Your task to perform on an android device: Open network settings Image 0: 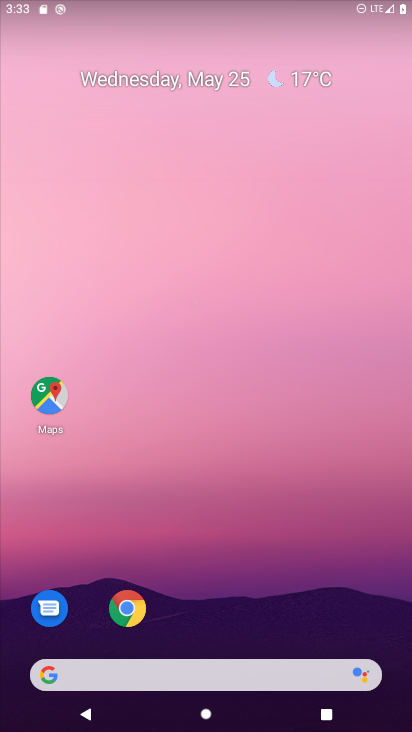
Step 0: drag from (371, 622) to (310, 6)
Your task to perform on an android device: Open network settings Image 1: 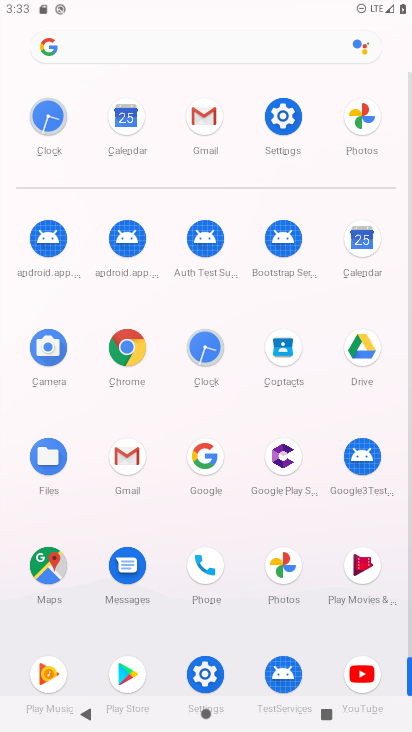
Step 1: click (207, 675)
Your task to perform on an android device: Open network settings Image 2: 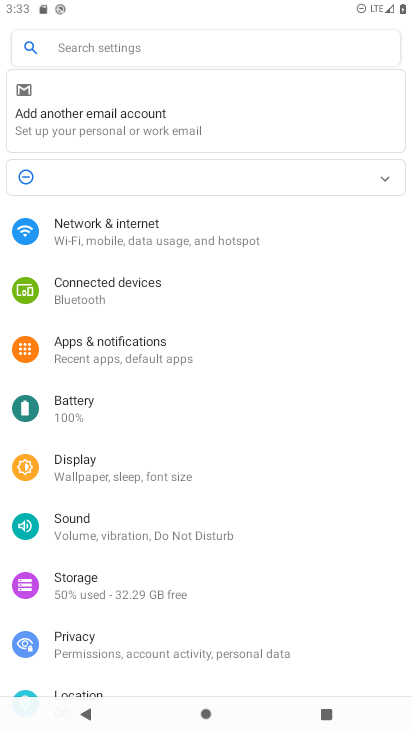
Step 2: click (119, 231)
Your task to perform on an android device: Open network settings Image 3: 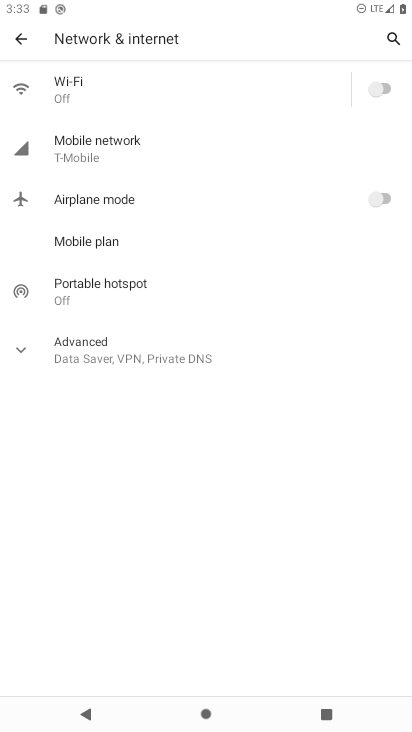
Step 3: click (23, 347)
Your task to perform on an android device: Open network settings Image 4: 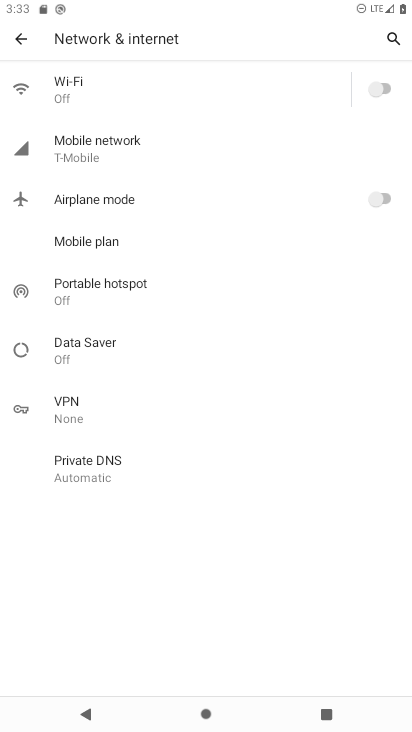
Step 4: click (96, 140)
Your task to perform on an android device: Open network settings Image 5: 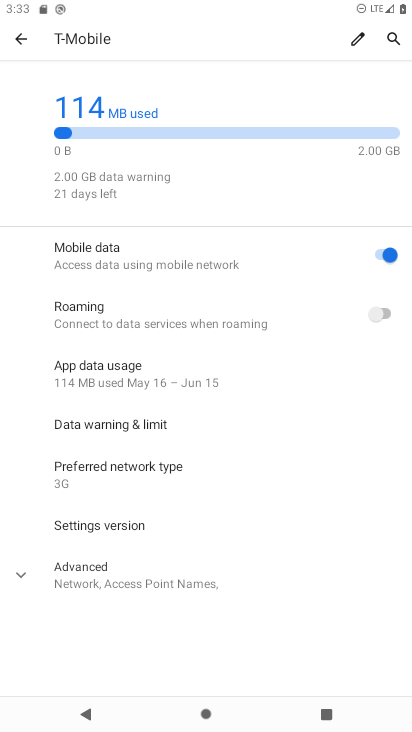
Step 5: click (11, 586)
Your task to perform on an android device: Open network settings Image 6: 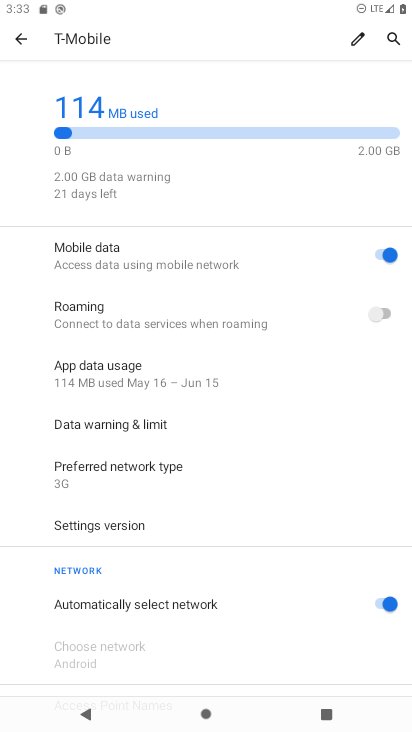
Step 6: task complete